Your task to perform on an android device: Search for good Thai restaurants Image 0: 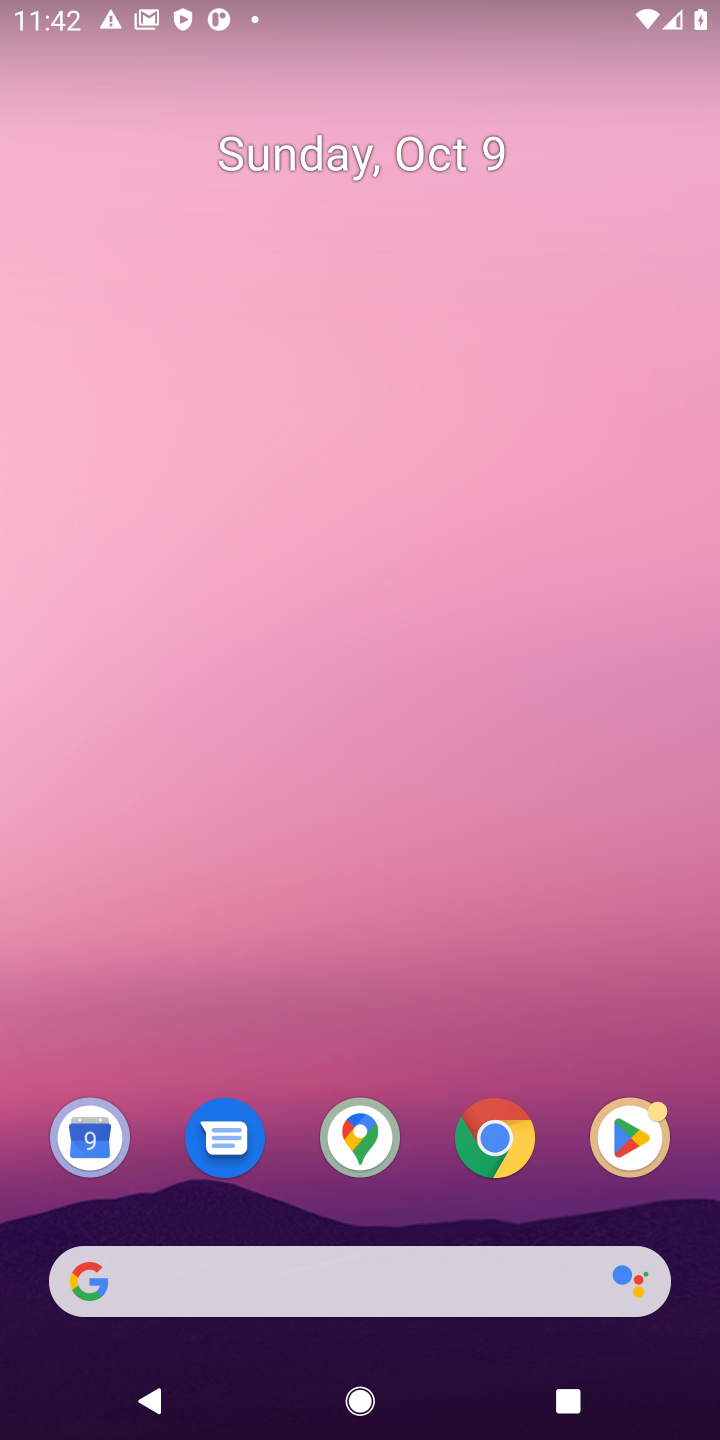
Step 0: click (518, 1162)
Your task to perform on an android device: Search for good Thai restaurants Image 1: 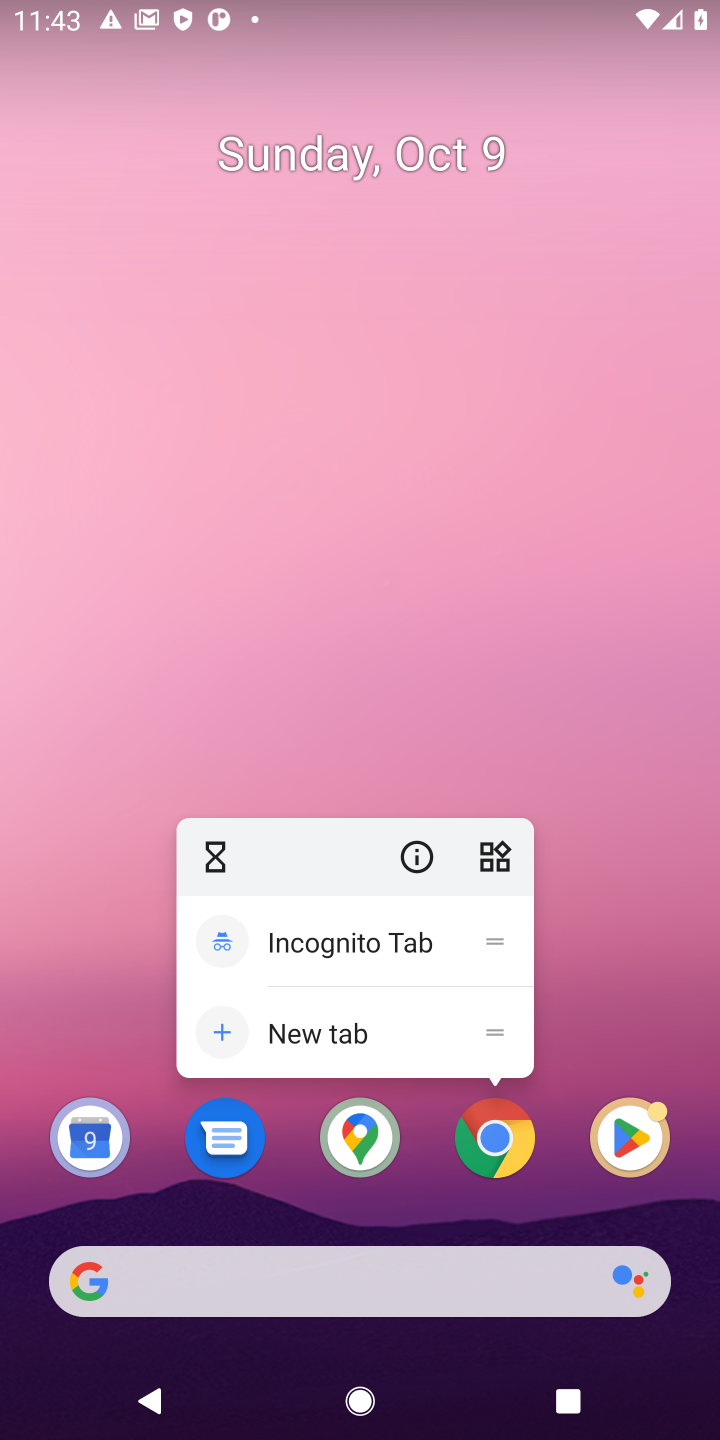
Step 1: click (485, 1148)
Your task to perform on an android device: Search for good Thai restaurants Image 2: 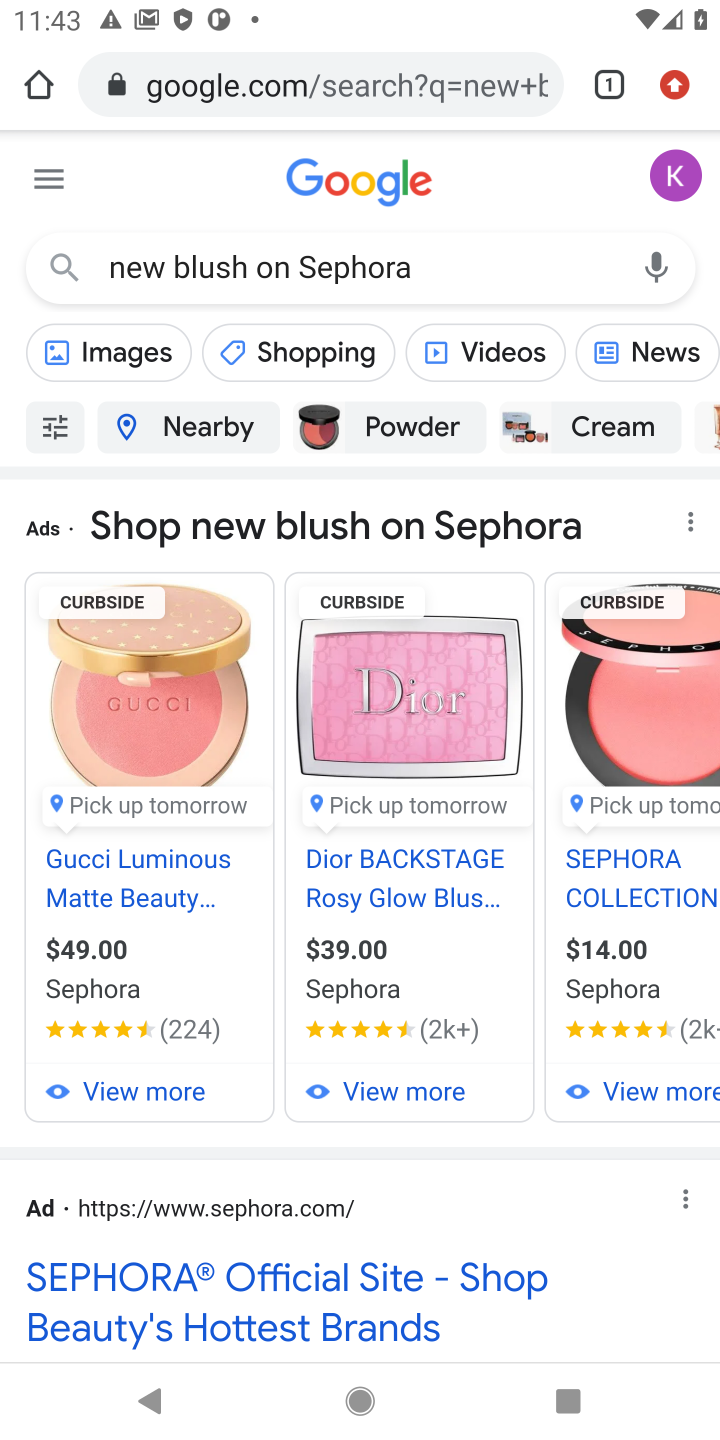
Step 2: click (467, 278)
Your task to perform on an android device: Search for good Thai restaurants Image 3: 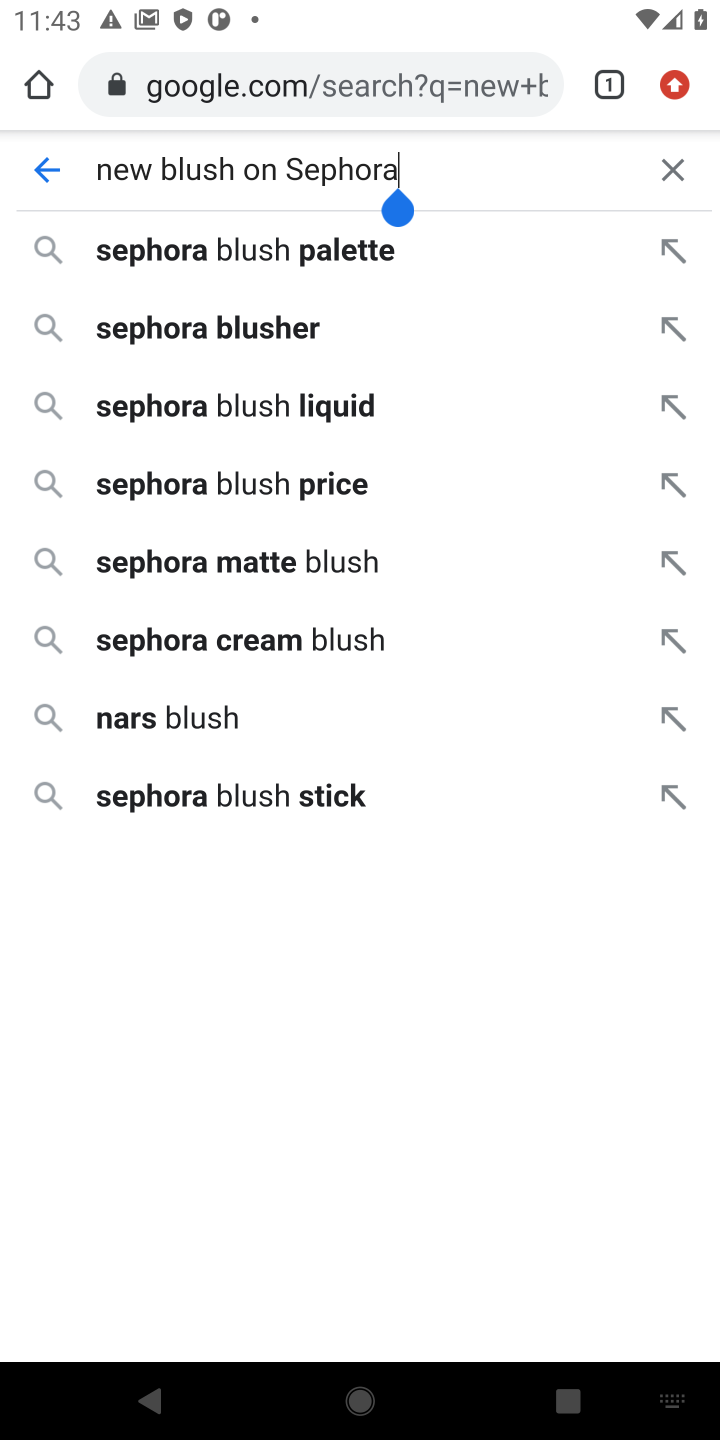
Step 3: click (683, 180)
Your task to perform on an android device: Search for good Thai restaurants Image 4: 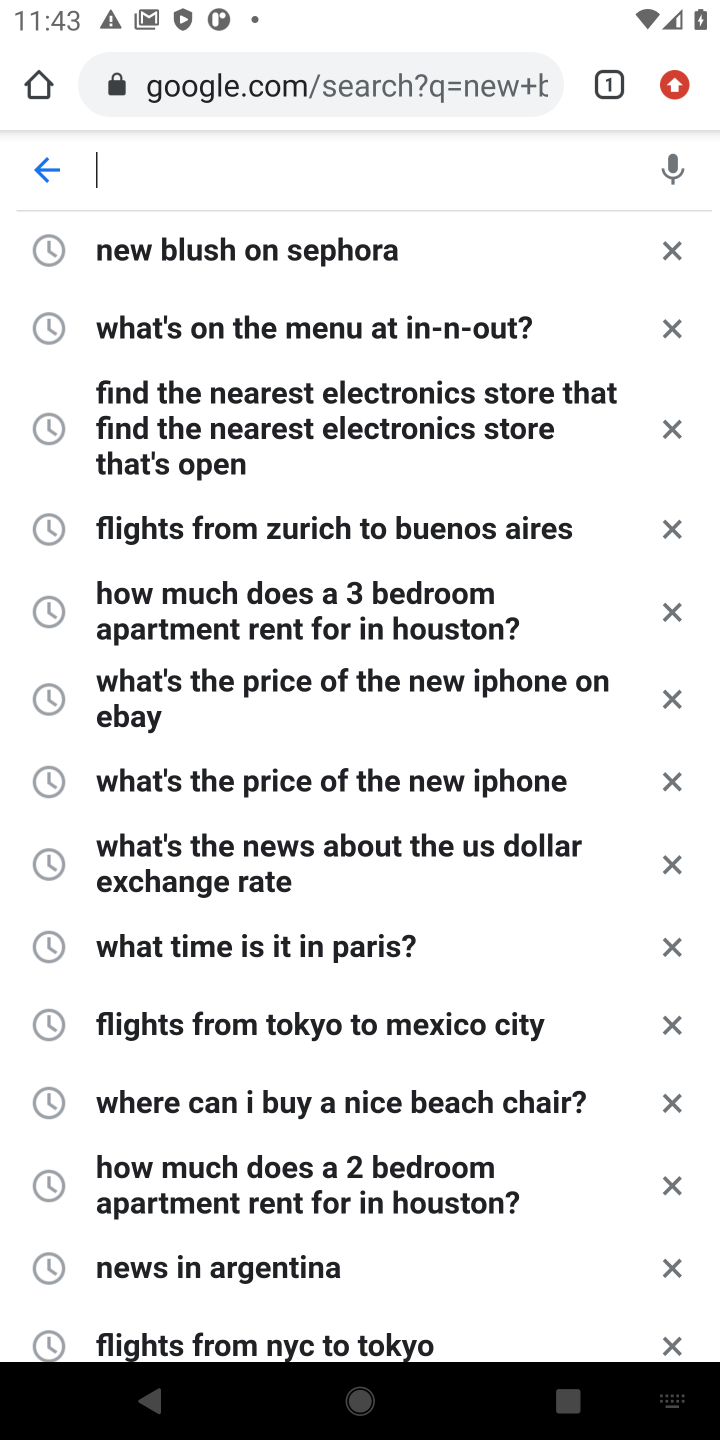
Step 4: type "good thai restaurants"
Your task to perform on an android device: Search for good Thai restaurants Image 5: 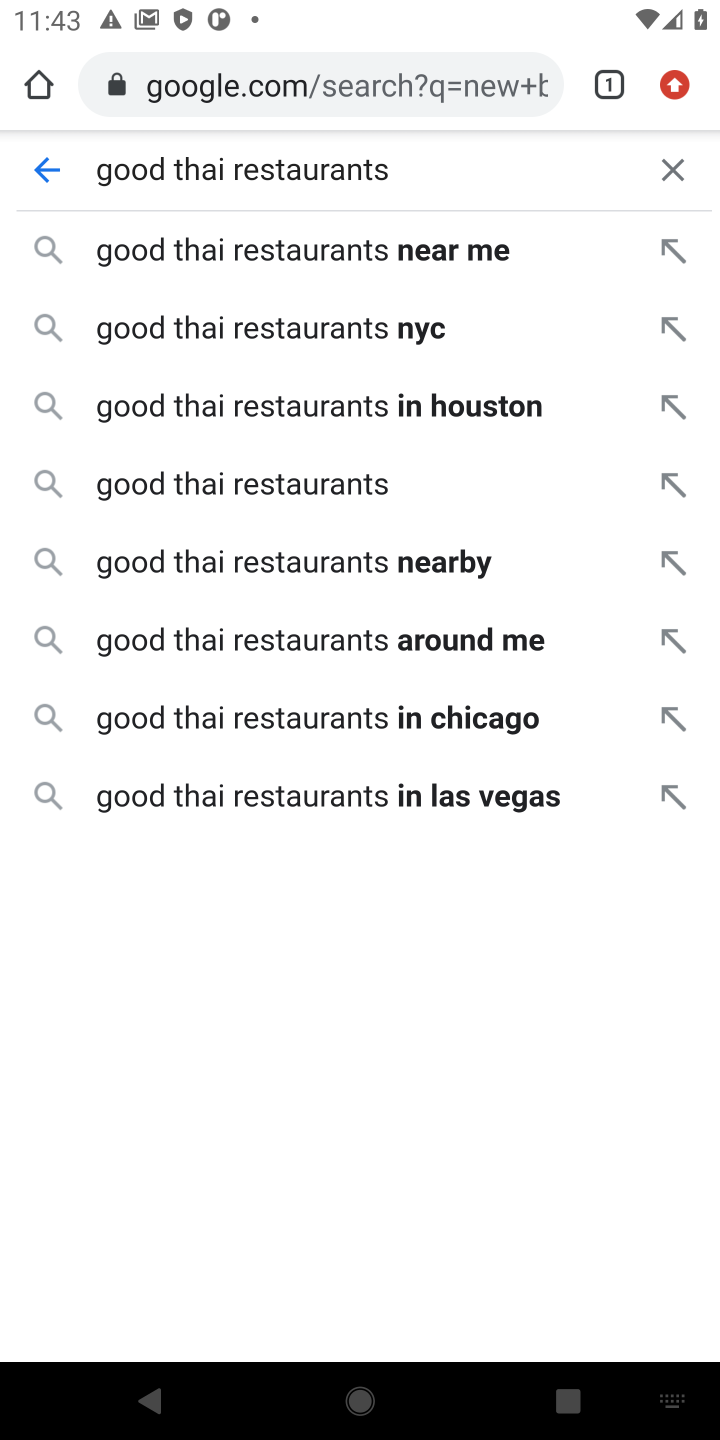
Step 5: press enter
Your task to perform on an android device: Search for good Thai restaurants Image 6: 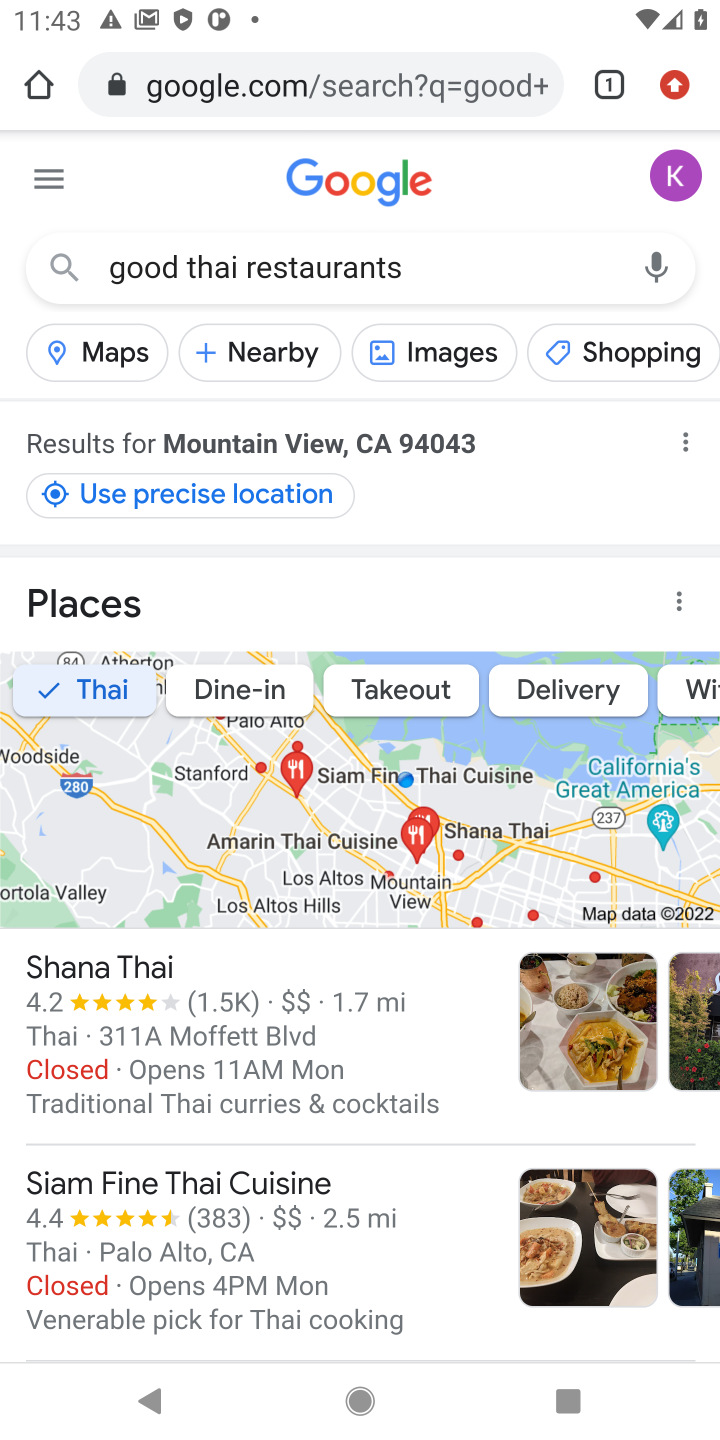
Step 6: task complete